Your task to perform on an android device: Do I have any events tomorrow? Image 0: 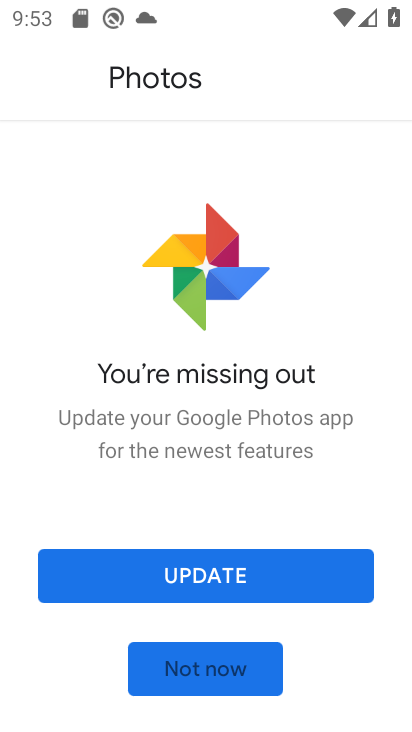
Step 0: press home button
Your task to perform on an android device: Do I have any events tomorrow? Image 1: 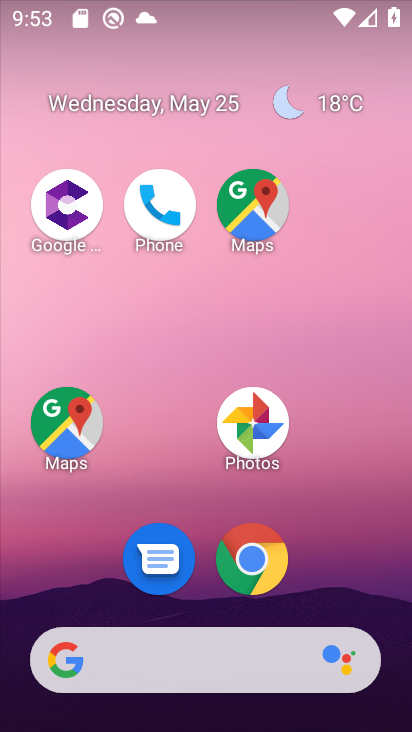
Step 1: drag from (339, 605) to (234, 8)
Your task to perform on an android device: Do I have any events tomorrow? Image 2: 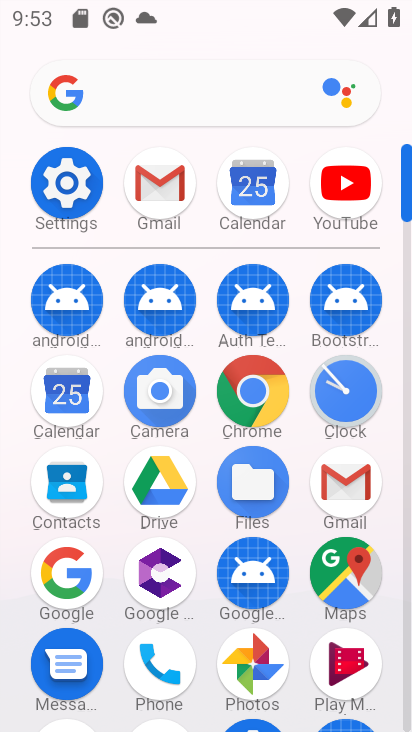
Step 2: click (80, 388)
Your task to perform on an android device: Do I have any events tomorrow? Image 3: 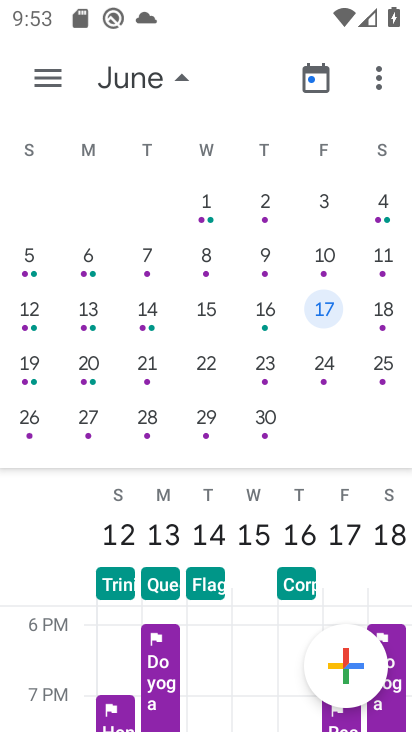
Step 3: click (49, 68)
Your task to perform on an android device: Do I have any events tomorrow? Image 4: 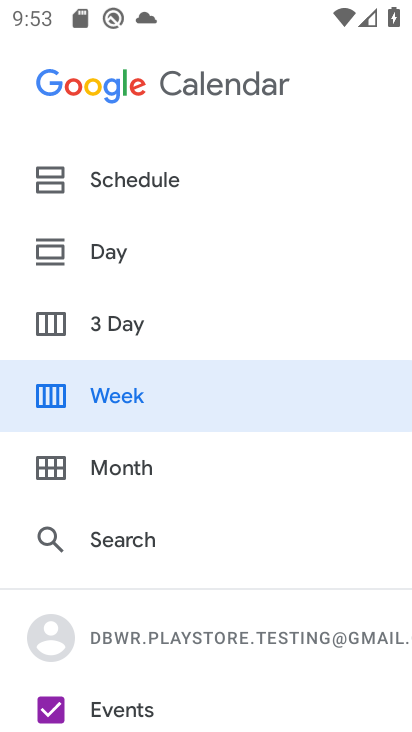
Step 4: click (142, 178)
Your task to perform on an android device: Do I have any events tomorrow? Image 5: 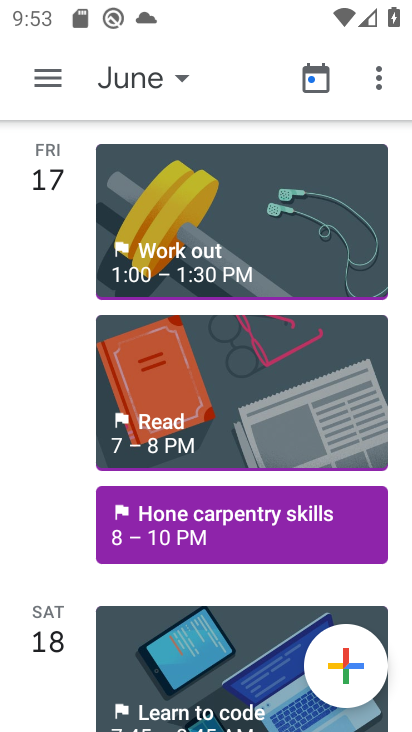
Step 5: task complete